Your task to perform on an android device: Show me popular videos on Youtube Image 0: 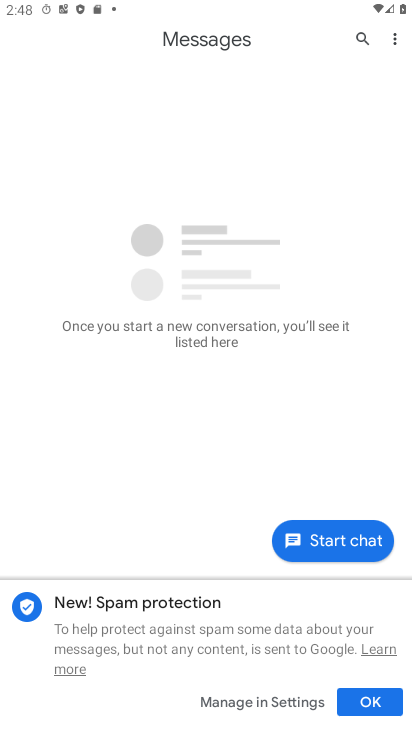
Step 0: press home button
Your task to perform on an android device: Show me popular videos on Youtube Image 1: 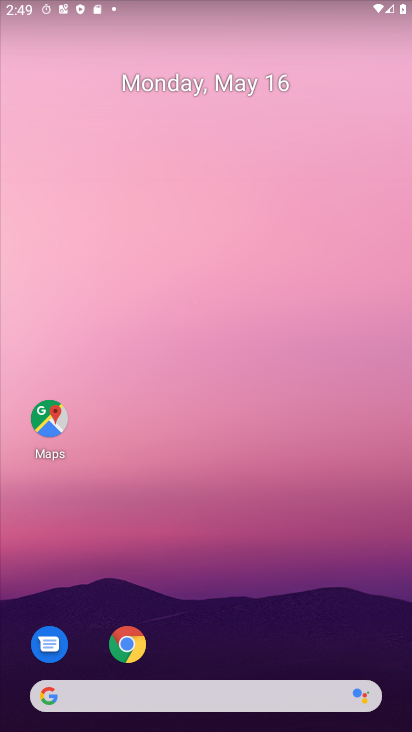
Step 1: drag from (184, 669) to (222, 231)
Your task to perform on an android device: Show me popular videos on Youtube Image 2: 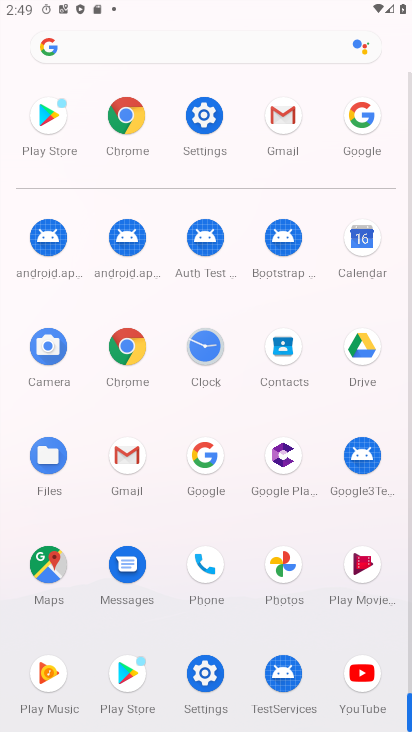
Step 2: click (375, 663)
Your task to perform on an android device: Show me popular videos on Youtube Image 3: 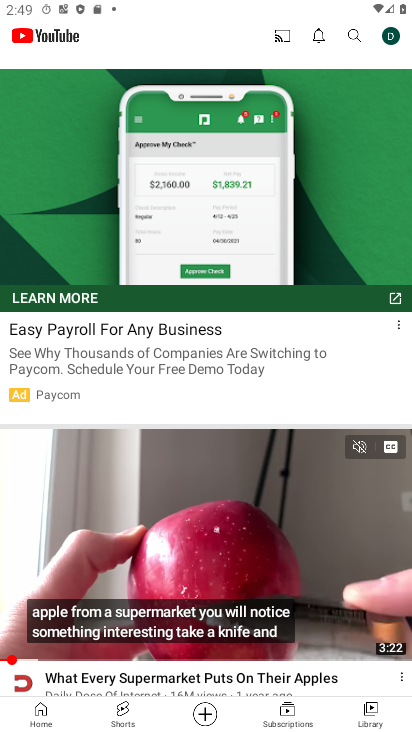
Step 3: task complete